Your task to perform on an android device: turn on priority inbox in the gmail app Image 0: 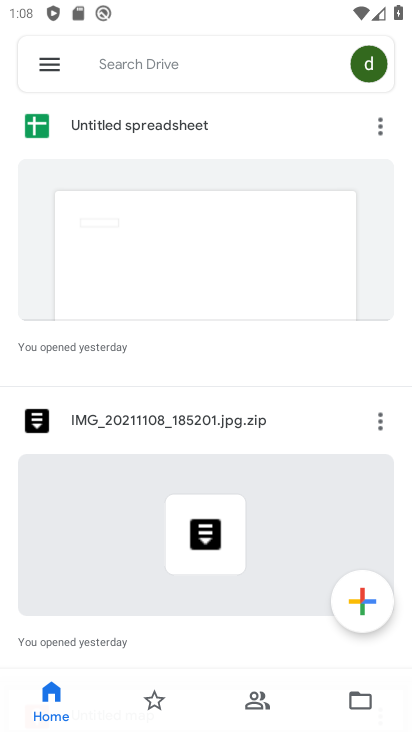
Step 0: press home button
Your task to perform on an android device: turn on priority inbox in the gmail app Image 1: 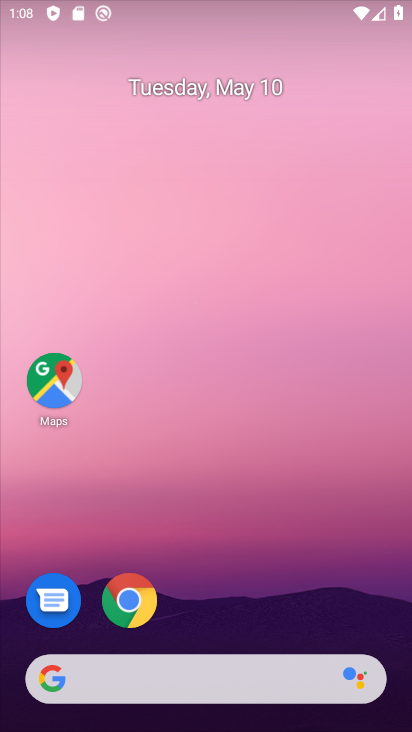
Step 1: drag from (204, 622) to (206, 131)
Your task to perform on an android device: turn on priority inbox in the gmail app Image 2: 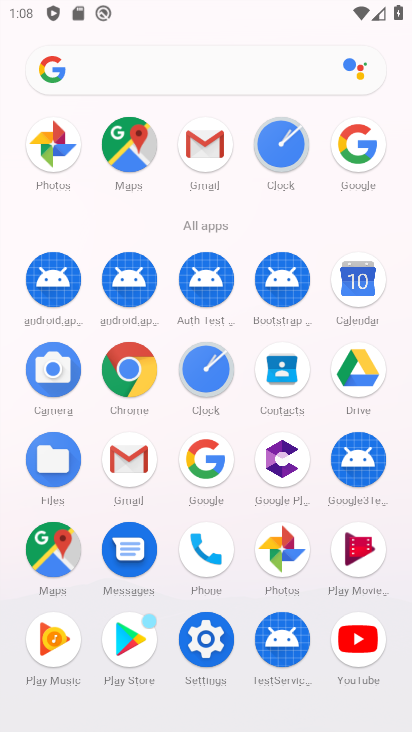
Step 2: click (203, 145)
Your task to perform on an android device: turn on priority inbox in the gmail app Image 3: 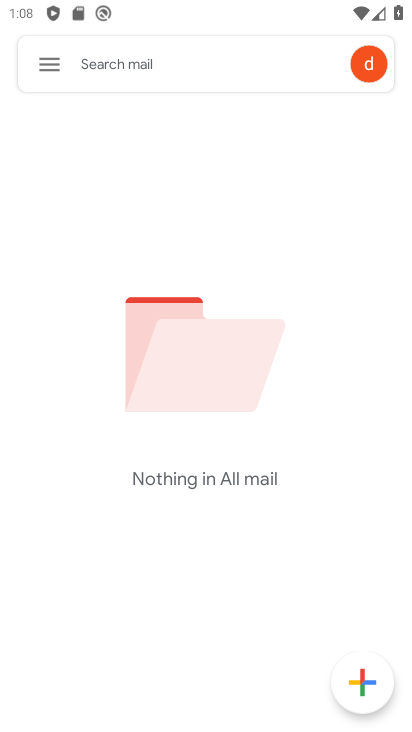
Step 3: click (55, 68)
Your task to perform on an android device: turn on priority inbox in the gmail app Image 4: 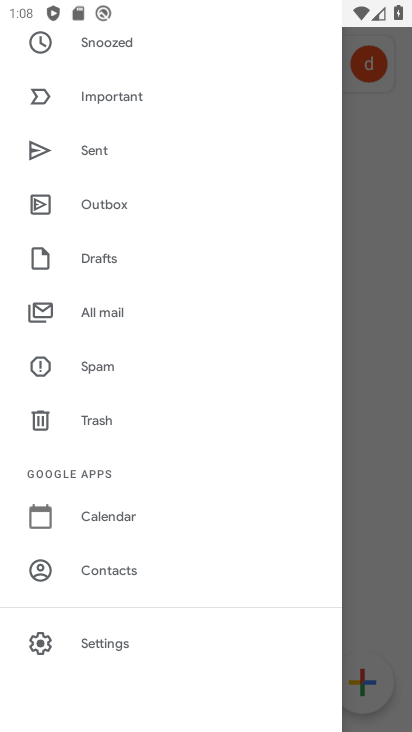
Step 4: click (122, 646)
Your task to perform on an android device: turn on priority inbox in the gmail app Image 5: 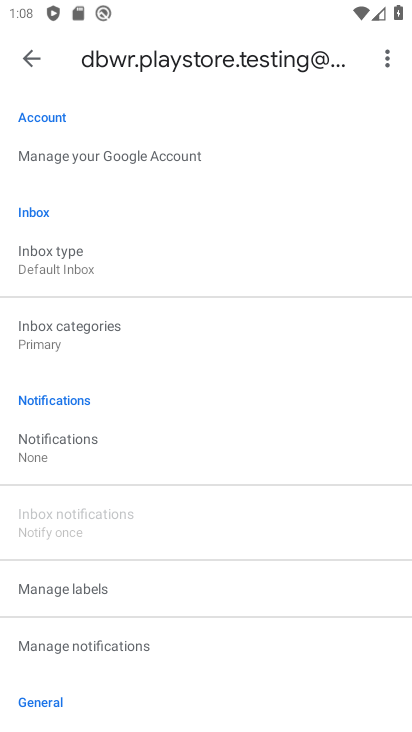
Step 5: click (53, 272)
Your task to perform on an android device: turn on priority inbox in the gmail app Image 6: 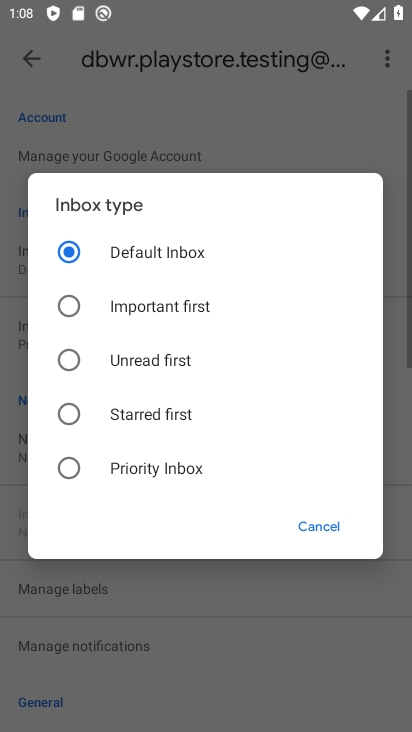
Step 6: click (76, 467)
Your task to perform on an android device: turn on priority inbox in the gmail app Image 7: 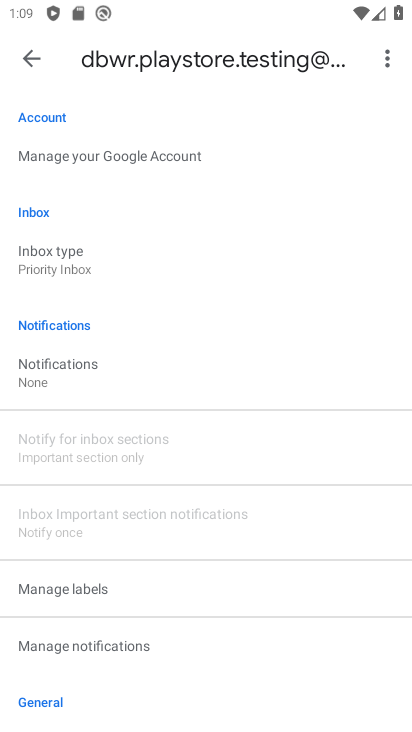
Step 7: task complete